Your task to perform on an android device: stop showing notifications on the lock screen Image 0: 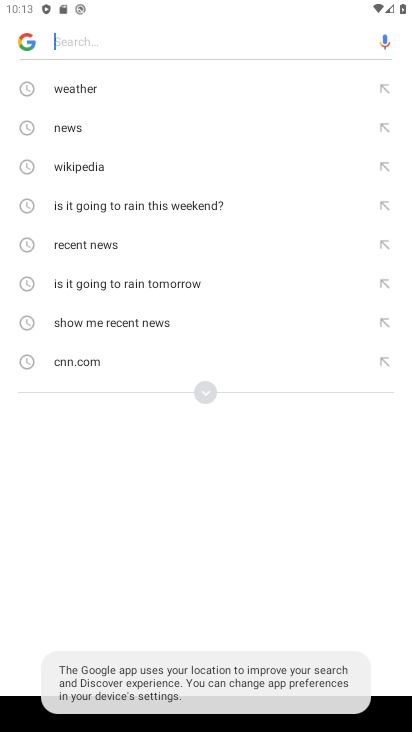
Step 0: press home button
Your task to perform on an android device: stop showing notifications on the lock screen Image 1: 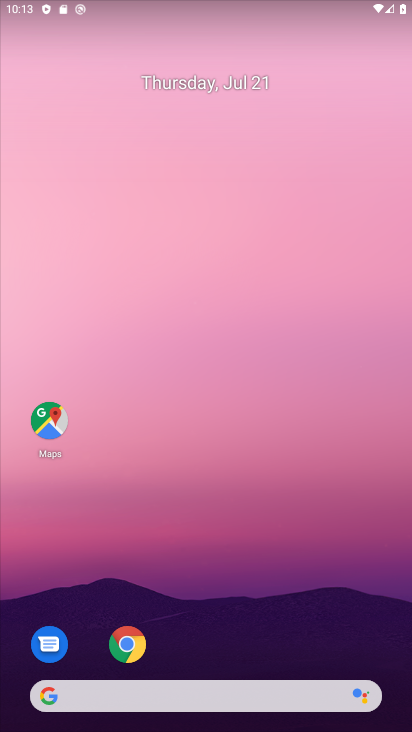
Step 1: drag from (265, 644) to (260, 16)
Your task to perform on an android device: stop showing notifications on the lock screen Image 2: 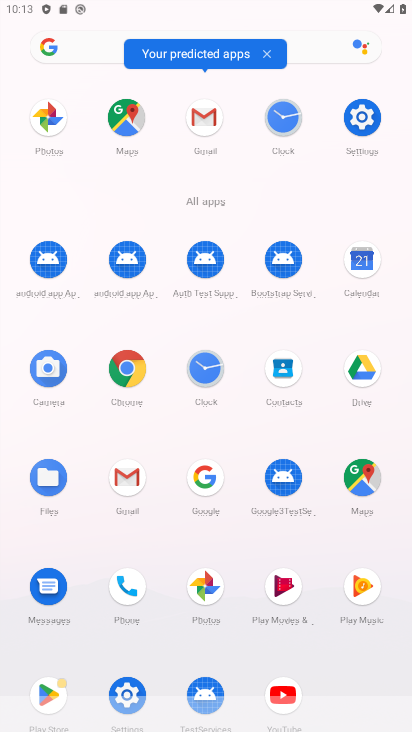
Step 2: click (358, 122)
Your task to perform on an android device: stop showing notifications on the lock screen Image 3: 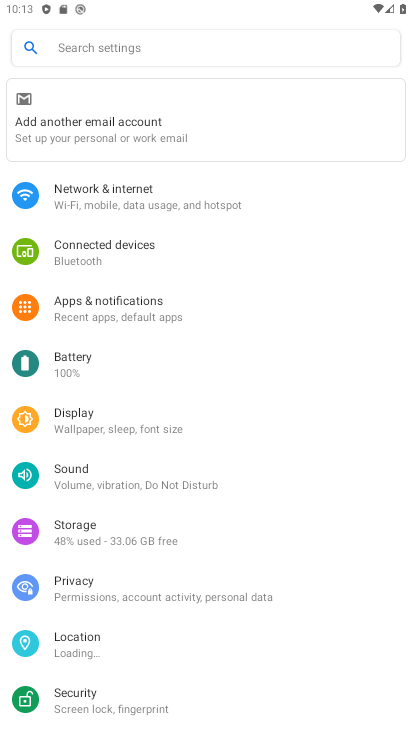
Step 3: drag from (177, 220) to (165, 108)
Your task to perform on an android device: stop showing notifications on the lock screen Image 4: 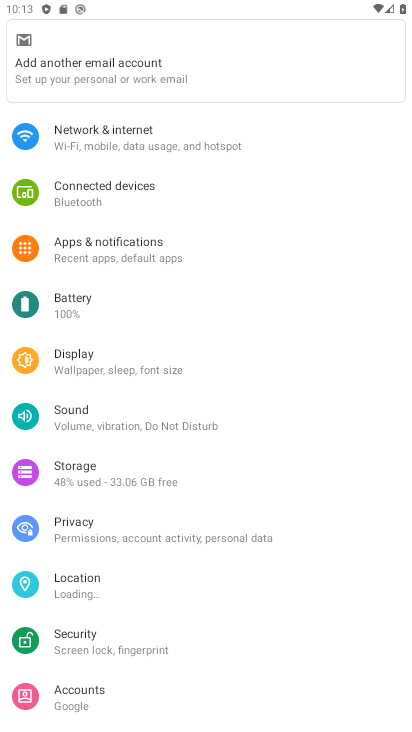
Step 4: click (204, 253)
Your task to perform on an android device: stop showing notifications on the lock screen Image 5: 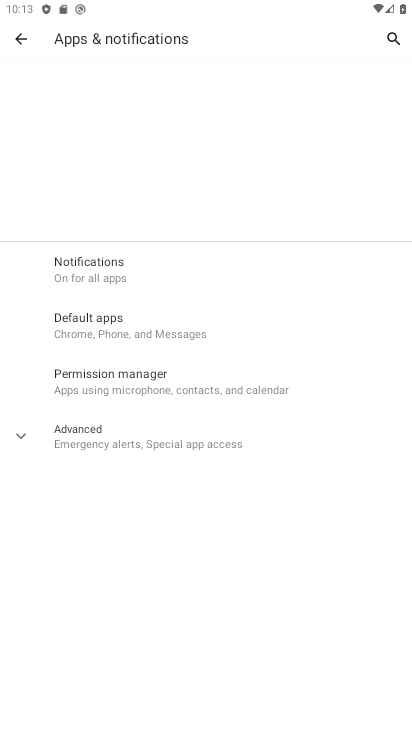
Step 5: click (143, 266)
Your task to perform on an android device: stop showing notifications on the lock screen Image 6: 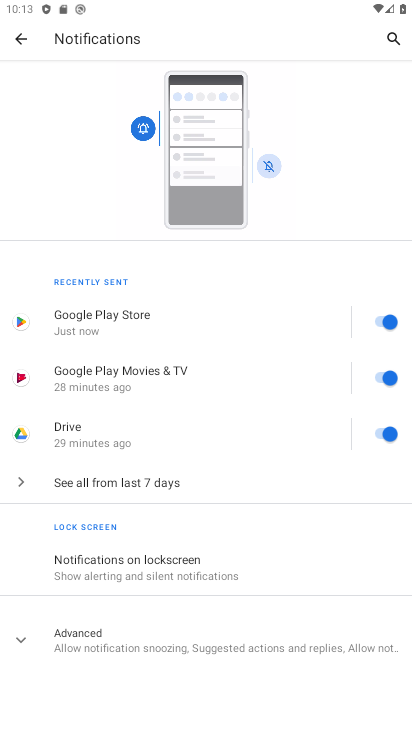
Step 6: click (253, 563)
Your task to perform on an android device: stop showing notifications on the lock screen Image 7: 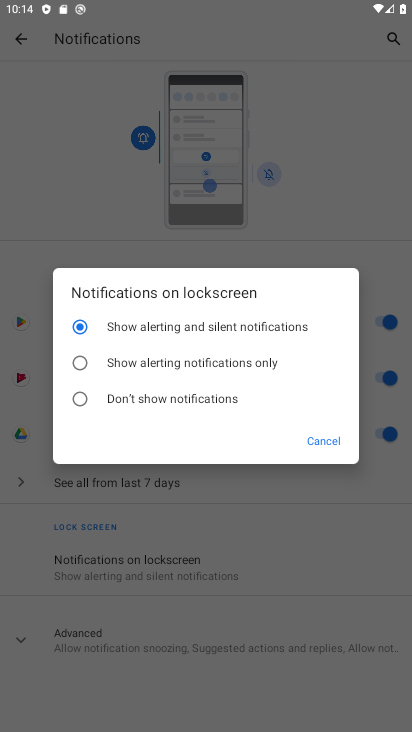
Step 7: click (209, 408)
Your task to perform on an android device: stop showing notifications on the lock screen Image 8: 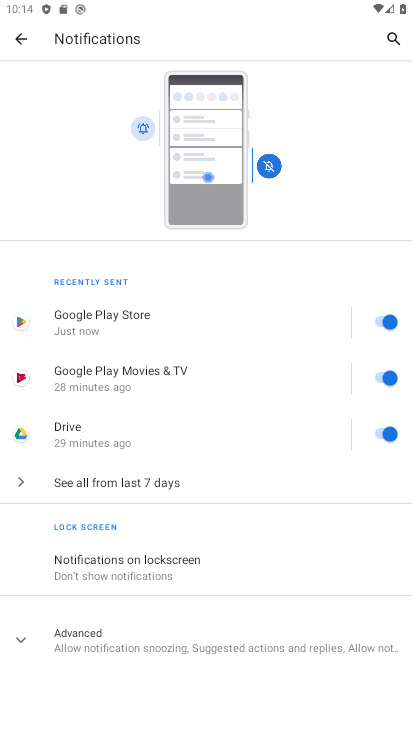
Step 8: task complete